Your task to perform on an android device: set default search engine in the chrome app Image 0: 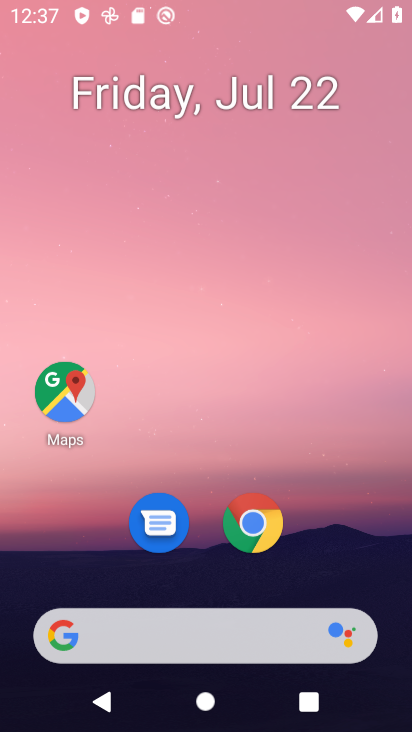
Step 0: click (280, 99)
Your task to perform on an android device: set default search engine in the chrome app Image 1: 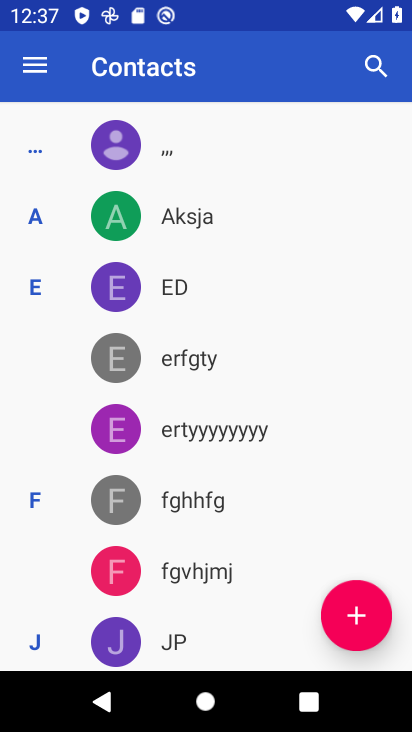
Step 1: press home button
Your task to perform on an android device: set default search engine in the chrome app Image 2: 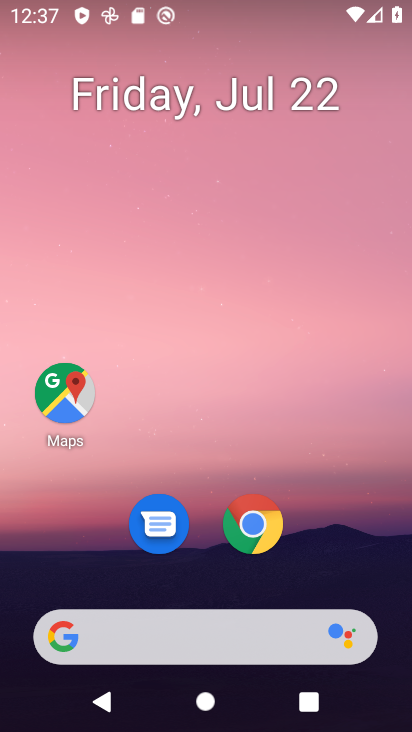
Step 2: drag from (231, 617) to (325, 104)
Your task to perform on an android device: set default search engine in the chrome app Image 3: 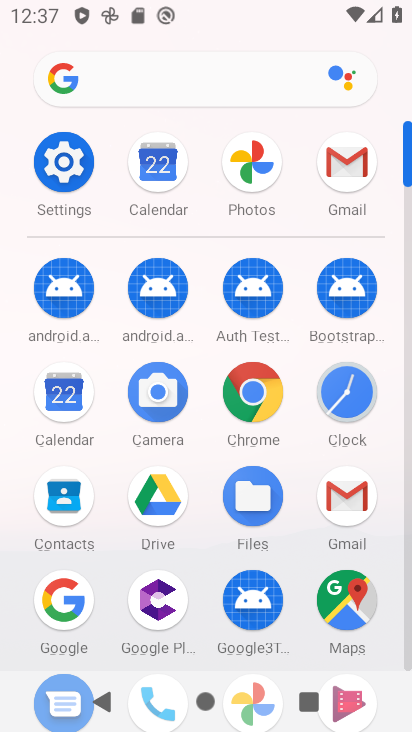
Step 3: click (63, 612)
Your task to perform on an android device: set default search engine in the chrome app Image 4: 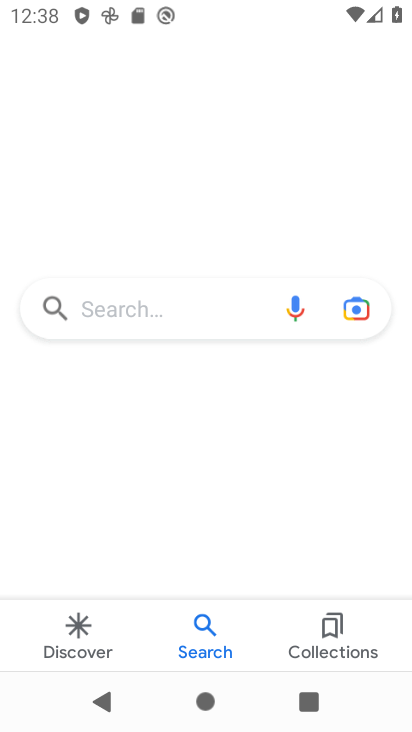
Step 4: press home button
Your task to perform on an android device: set default search engine in the chrome app Image 5: 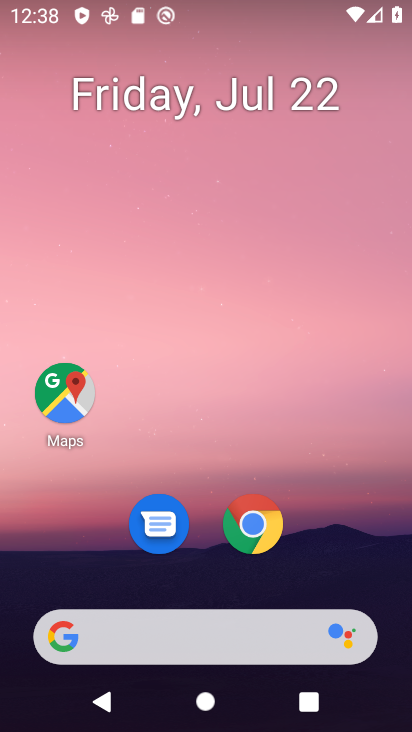
Step 5: click (268, 531)
Your task to perform on an android device: set default search engine in the chrome app Image 6: 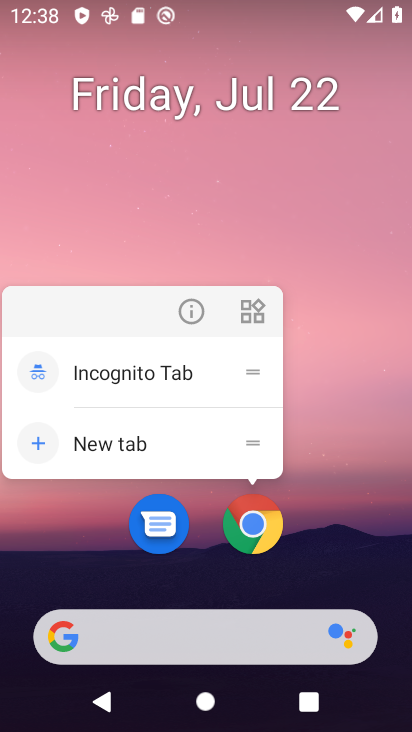
Step 6: click (259, 521)
Your task to perform on an android device: set default search engine in the chrome app Image 7: 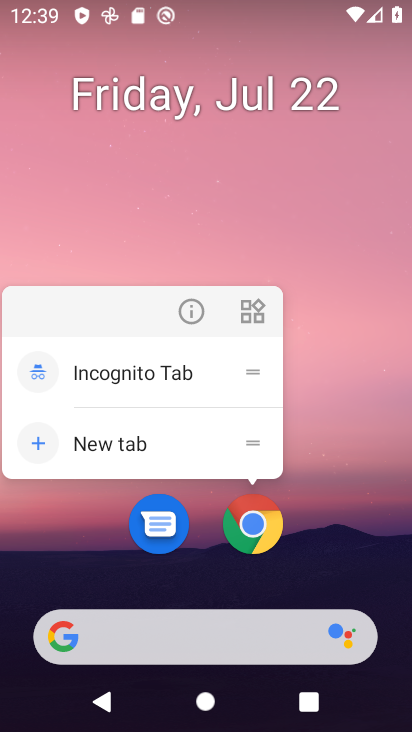
Step 7: click (253, 528)
Your task to perform on an android device: set default search engine in the chrome app Image 8: 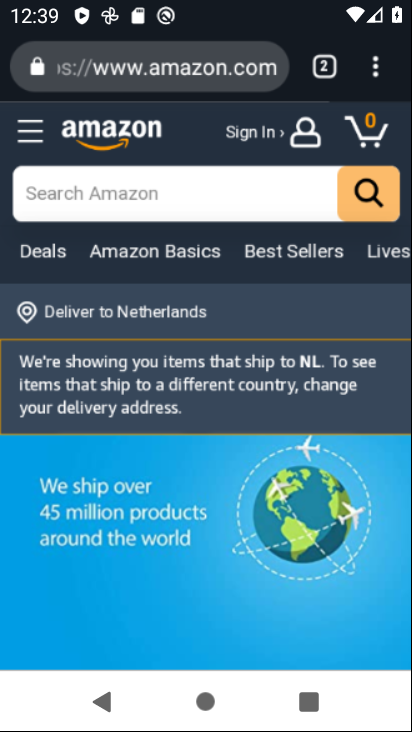
Step 8: drag from (370, 70) to (194, 513)
Your task to perform on an android device: set default search engine in the chrome app Image 9: 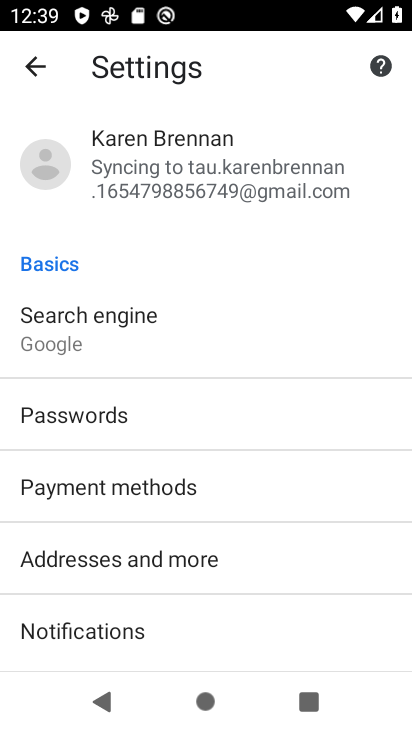
Step 9: click (107, 346)
Your task to perform on an android device: set default search engine in the chrome app Image 10: 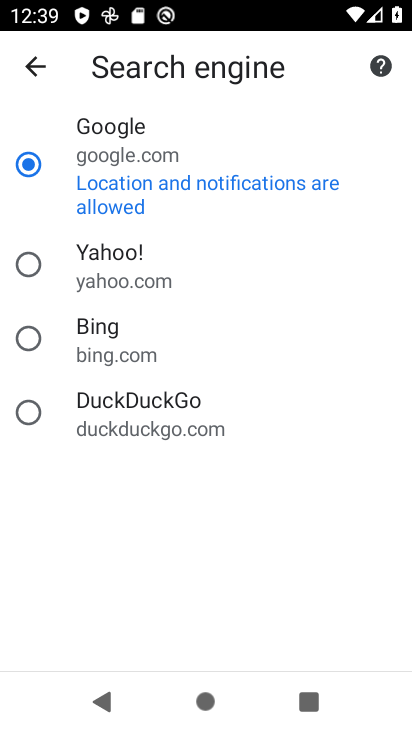
Step 10: click (30, 261)
Your task to perform on an android device: set default search engine in the chrome app Image 11: 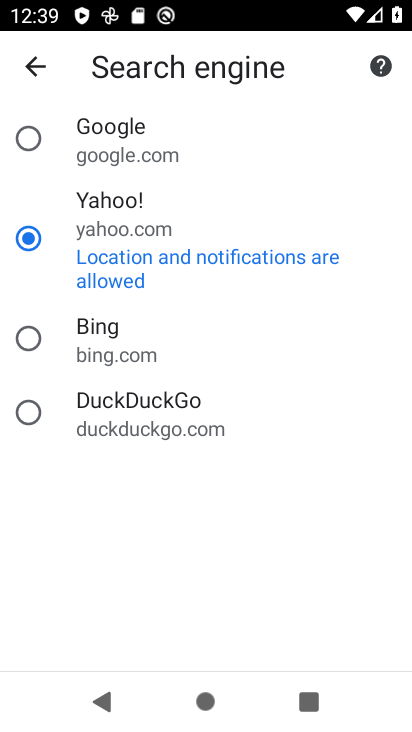
Step 11: task complete